Your task to perform on an android device: set an alarm Image 0: 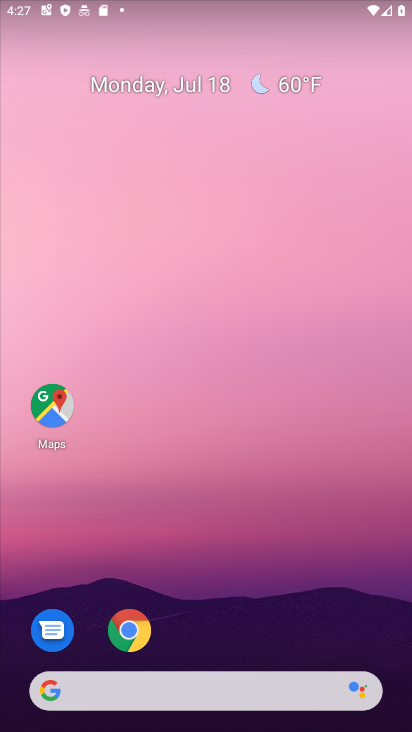
Step 0: drag from (208, 707) to (139, 222)
Your task to perform on an android device: set an alarm Image 1: 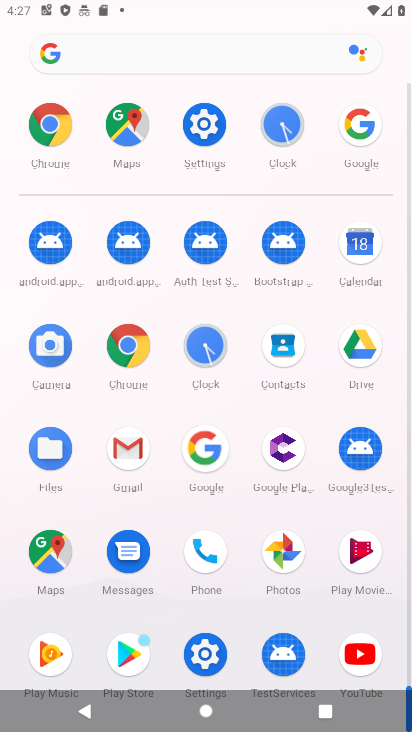
Step 1: click (208, 339)
Your task to perform on an android device: set an alarm Image 2: 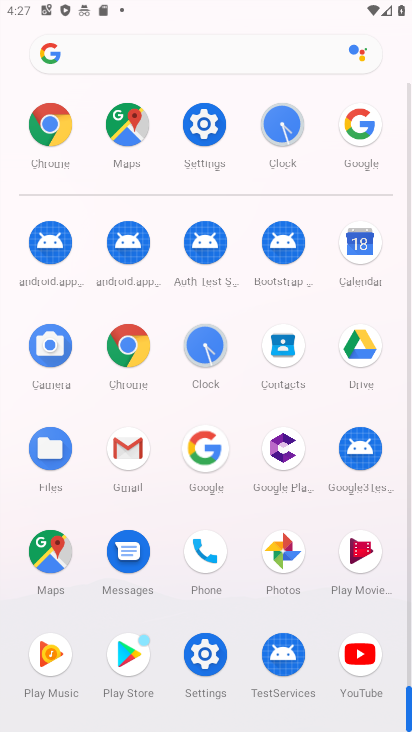
Step 2: click (208, 339)
Your task to perform on an android device: set an alarm Image 3: 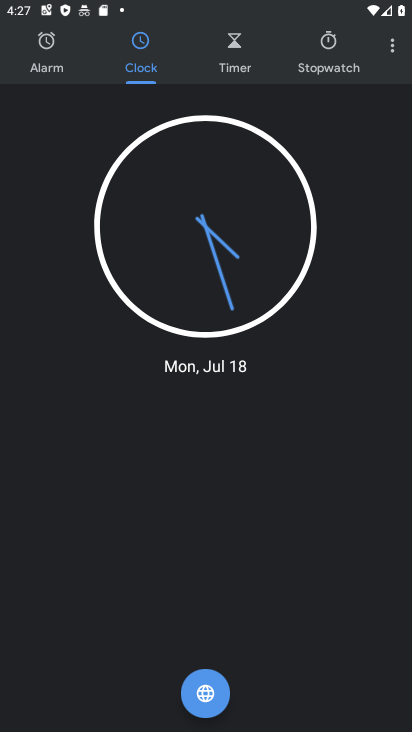
Step 3: click (55, 60)
Your task to perform on an android device: set an alarm Image 4: 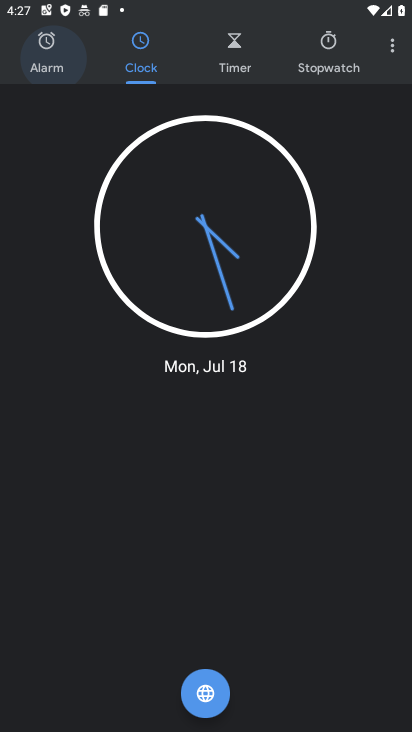
Step 4: click (55, 59)
Your task to perform on an android device: set an alarm Image 5: 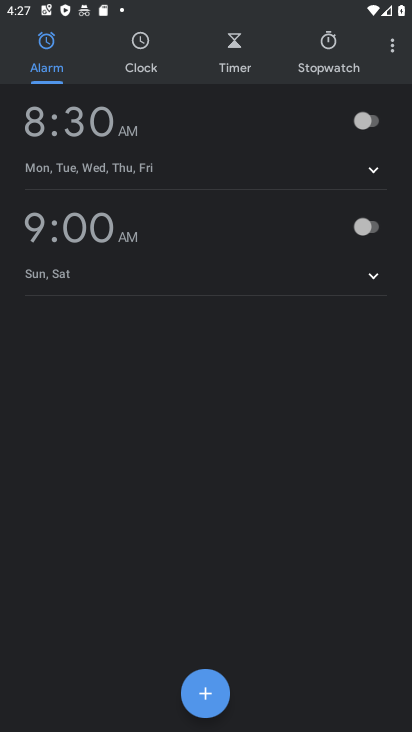
Step 5: click (372, 112)
Your task to perform on an android device: set an alarm Image 6: 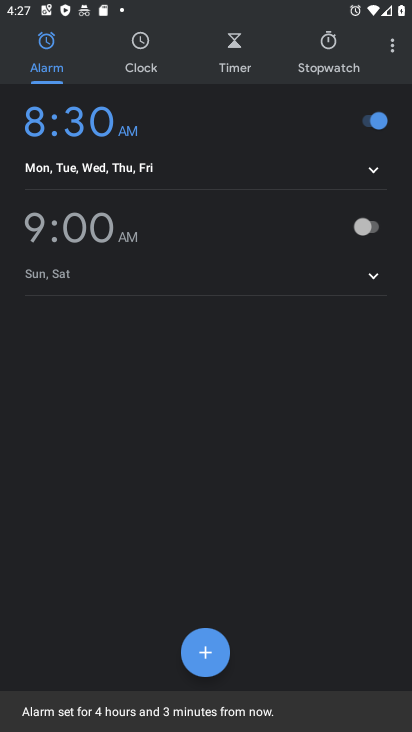
Step 6: task complete